Your task to perform on an android device: Go to network settings Image 0: 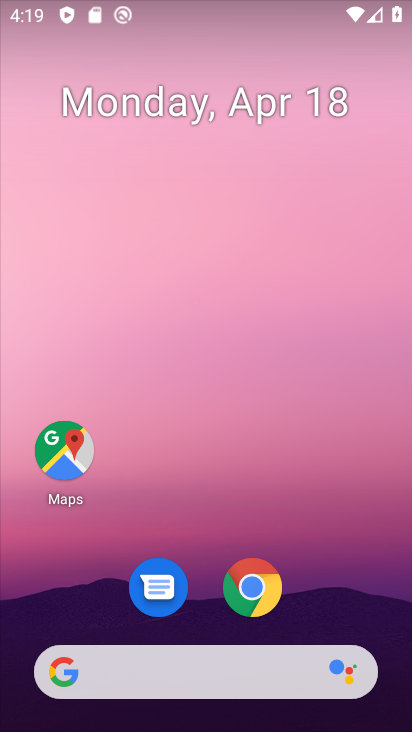
Step 0: drag from (355, 290) to (352, 187)
Your task to perform on an android device: Go to network settings Image 1: 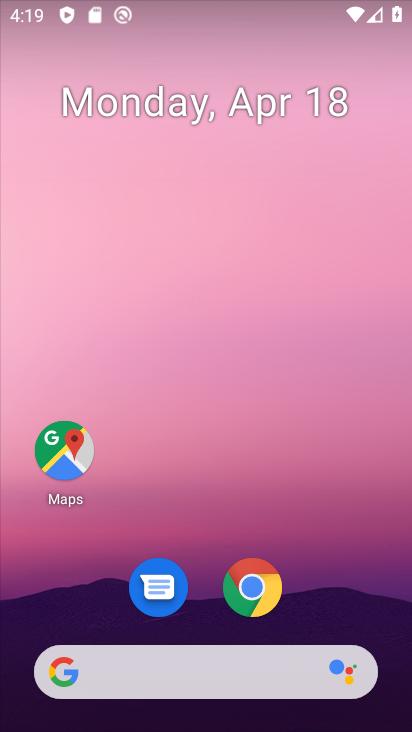
Step 1: drag from (216, 599) to (210, 193)
Your task to perform on an android device: Go to network settings Image 2: 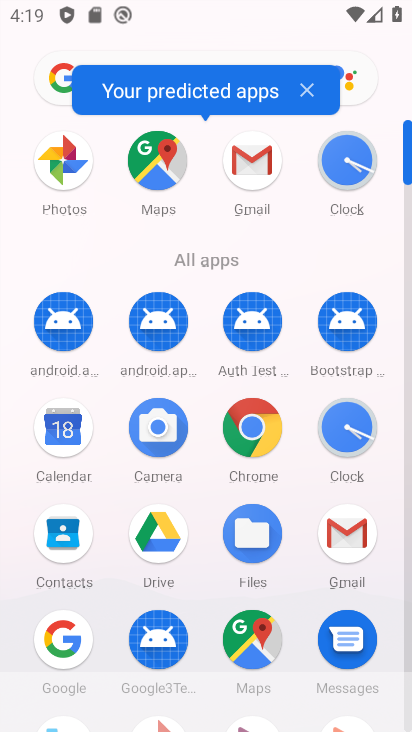
Step 2: drag from (244, 573) to (304, 170)
Your task to perform on an android device: Go to network settings Image 3: 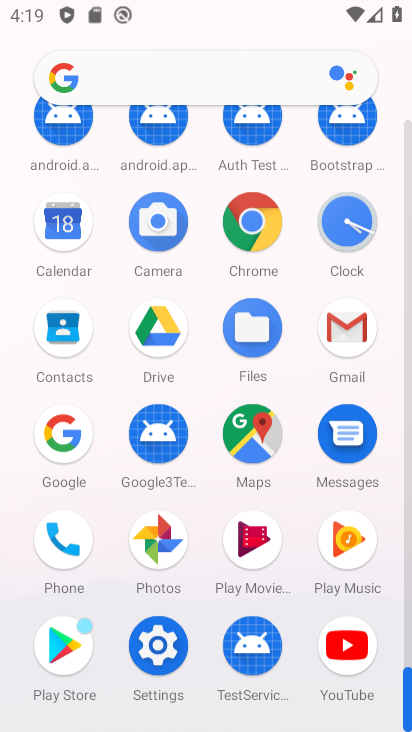
Step 3: click (172, 645)
Your task to perform on an android device: Go to network settings Image 4: 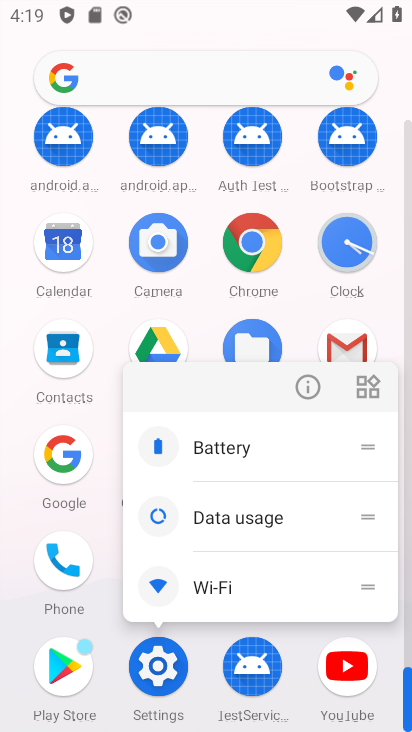
Step 4: click (160, 668)
Your task to perform on an android device: Go to network settings Image 5: 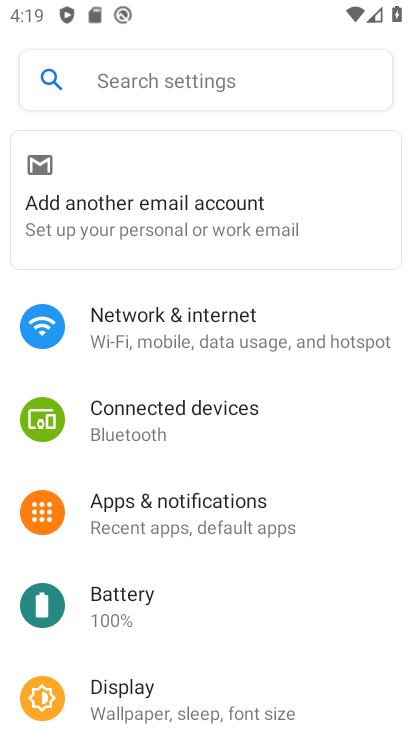
Step 5: click (223, 347)
Your task to perform on an android device: Go to network settings Image 6: 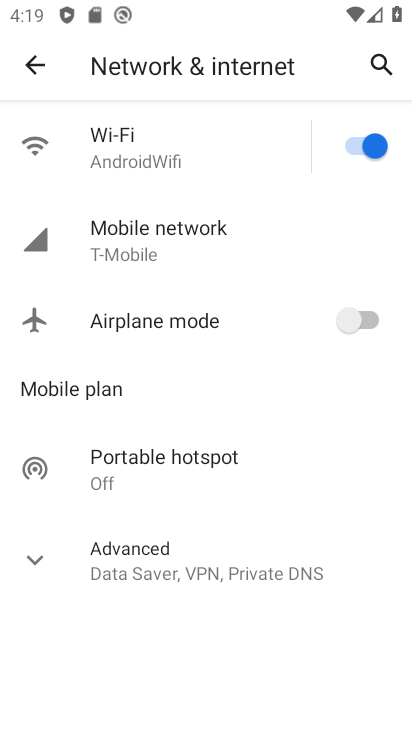
Step 6: click (179, 242)
Your task to perform on an android device: Go to network settings Image 7: 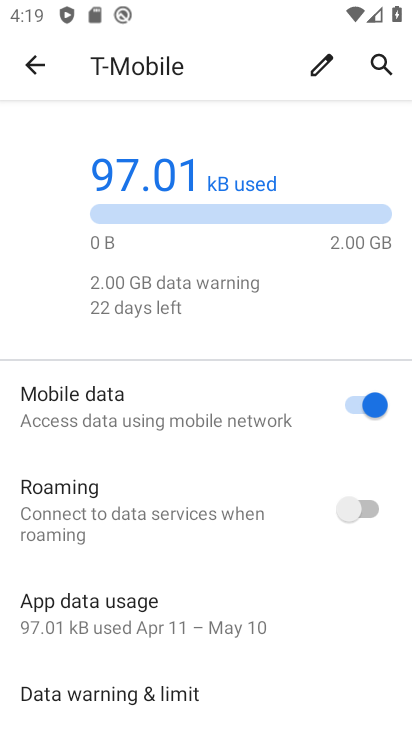
Step 7: task complete